Your task to perform on an android device: Open eBay Image 0: 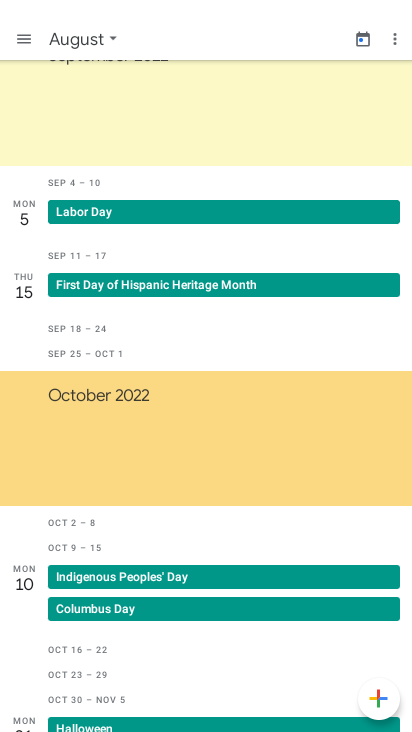
Step 0: press home button
Your task to perform on an android device: Open eBay Image 1: 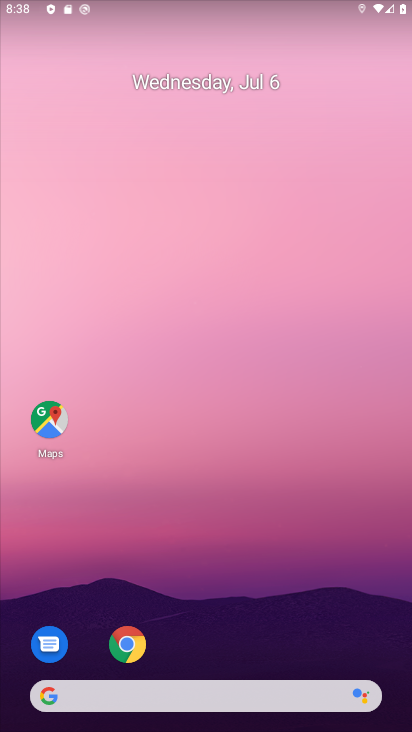
Step 1: click (128, 626)
Your task to perform on an android device: Open eBay Image 2: 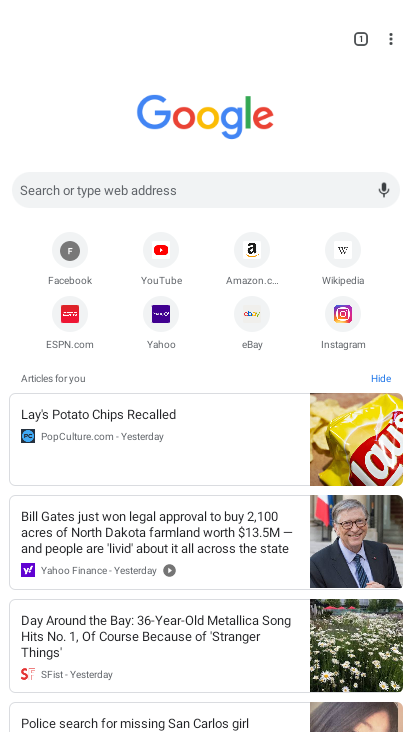
Step 2: click (258, 310)
Your task to perform on an android device: Open eBay Image 3: 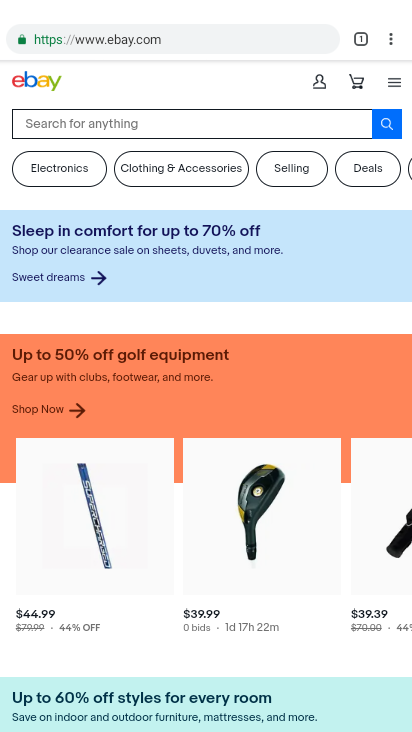
Step 3: task complete